Your task to perform on an android device: open the mobile data screen to see how much data has been used Image 0: 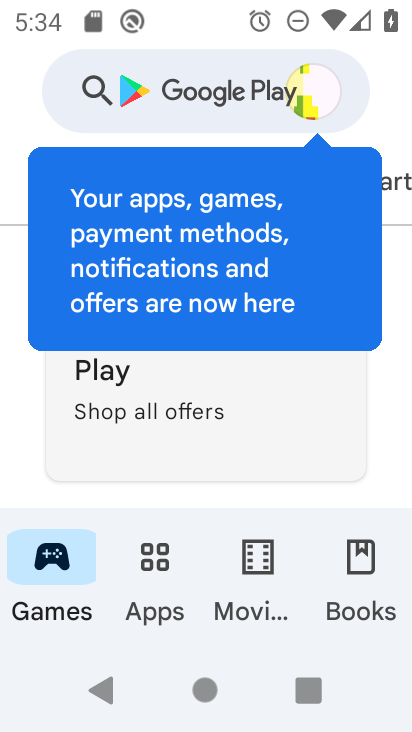
Step 0: press home button
Your task to perform on an android device: open the mobile data screen to see how much data has been used Image 1: 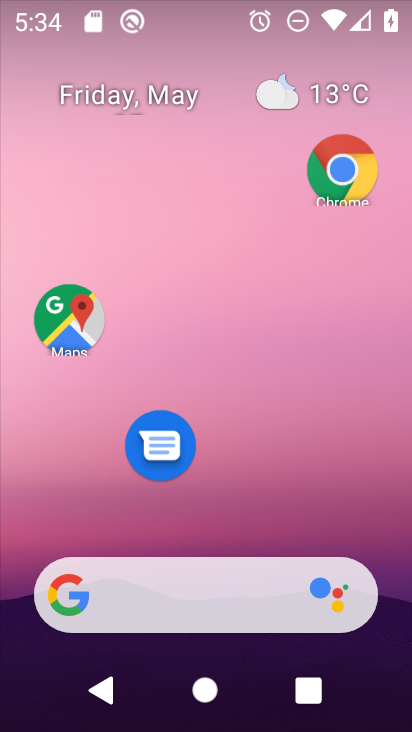
Step 1: drag from (232, 558) to (243, 2)
Your task to perform on an android device: open the mobile data screen to see how much data has been used Image 2: 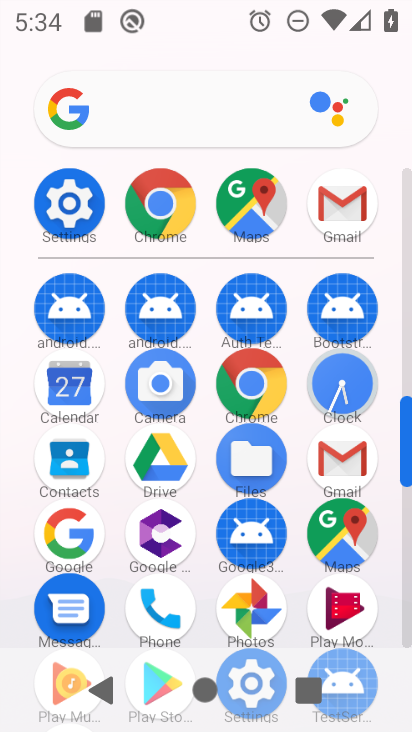
Step 2: click (57, 210)
Your task to perform on an android device: open the mobile data screen to see how much data has been used Image 3: 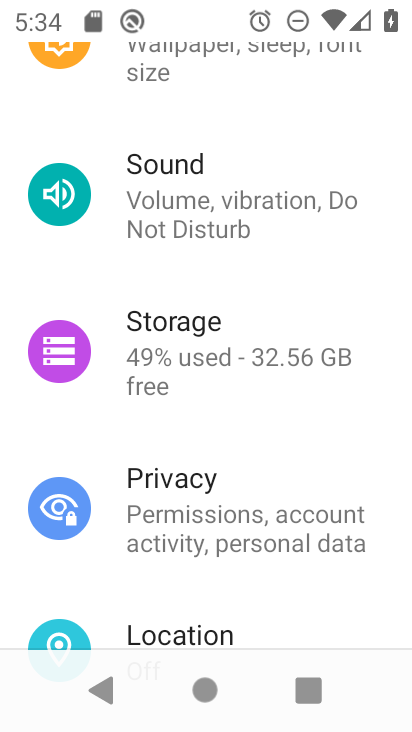
Step 3: drag from (219, 206) to (263, 598)
Your task to perform on an android device: open the mobile data screen to see how much data has been used Image 4: 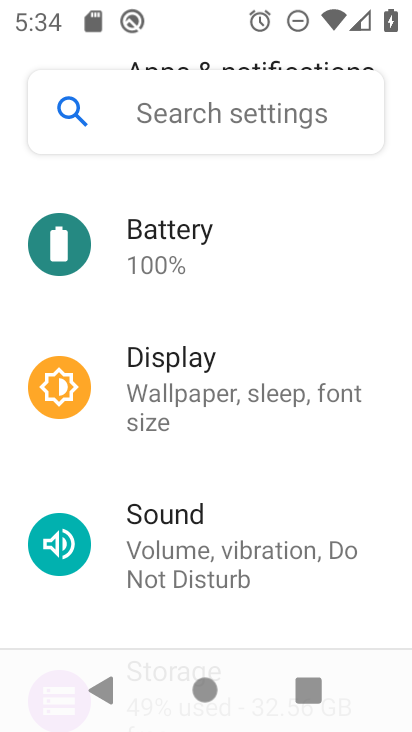
Step 4: drag from (261, 264) to (211, 622)
Your task to perform on an android device: open the mobile data screen to see how much data has been used Image 5: 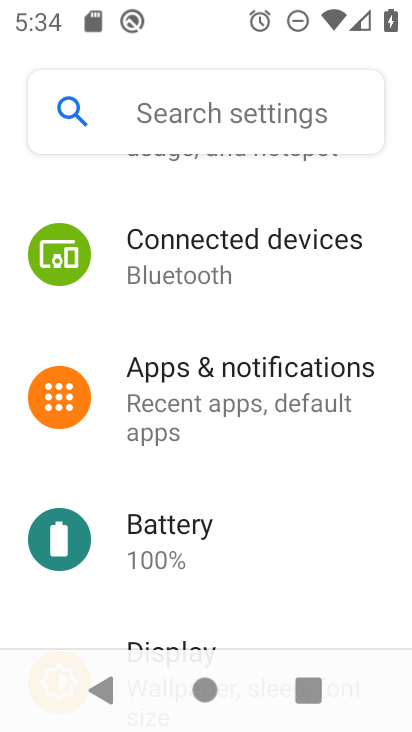
Step 5: drag from (250, 236) to (208, 703)
Your task to perform on an android device: open the mobile data screen to see how much data has been used Image 6: 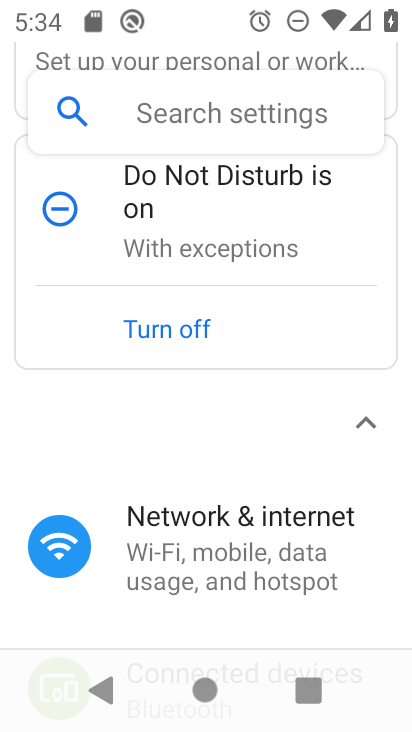
Step 6: click (188, 537)
Your task to perform on an android device: open the mobile data screen to see how much data has been used Image 7: 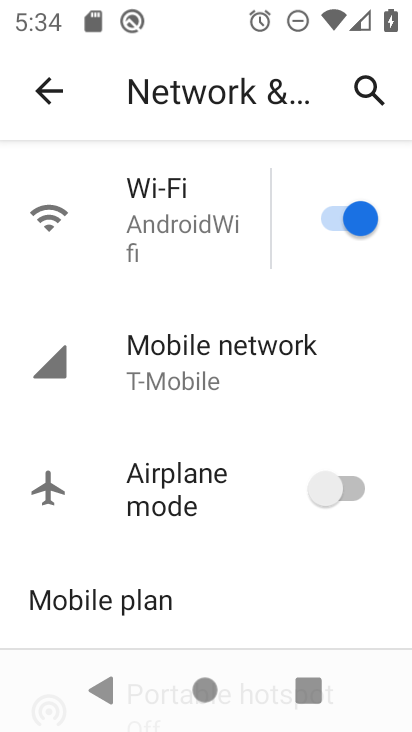
Step 7: click (194, 384)
Your task to perform on an android device: open the mobile data screen to see how much data has been used Image 8: 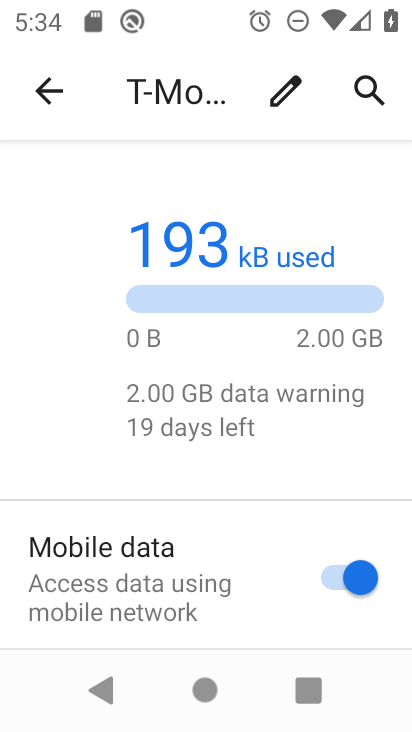
Step 8: task complete